Your task to perform on an android device: empty trash in the gmail app Image 0: 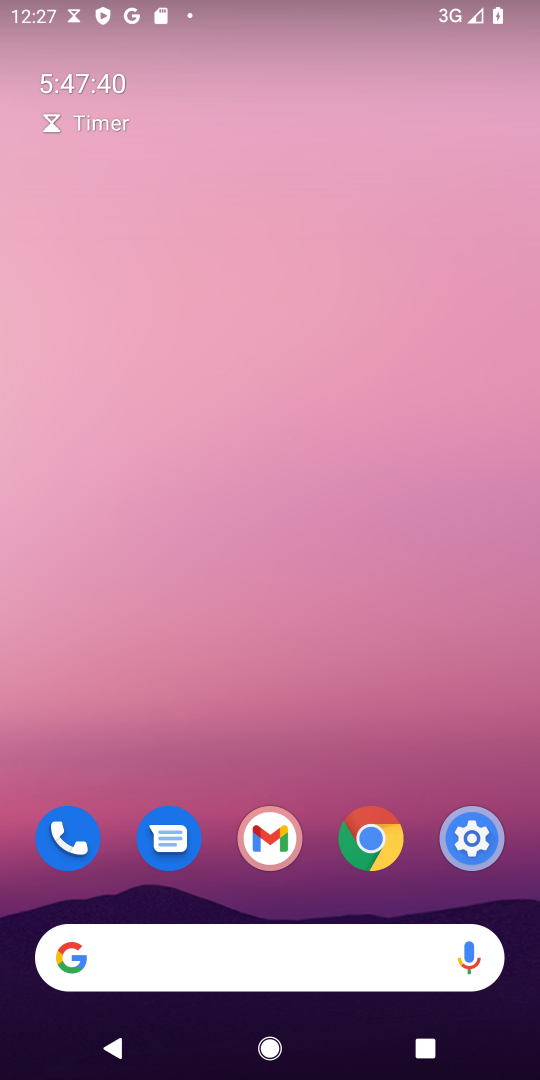
Step 0: click (262, 834)
Your task to perform on an android device: empty trash in the gmail app Image 1: 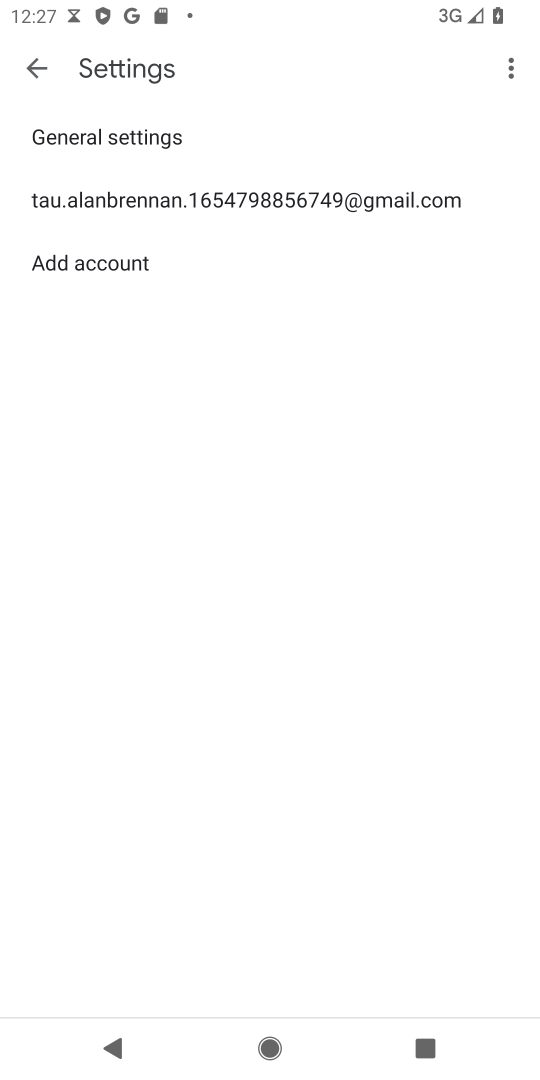
Step 1: click (34, 67)
Your task to perform on an android device: empty trash in the gmail app Image 2: 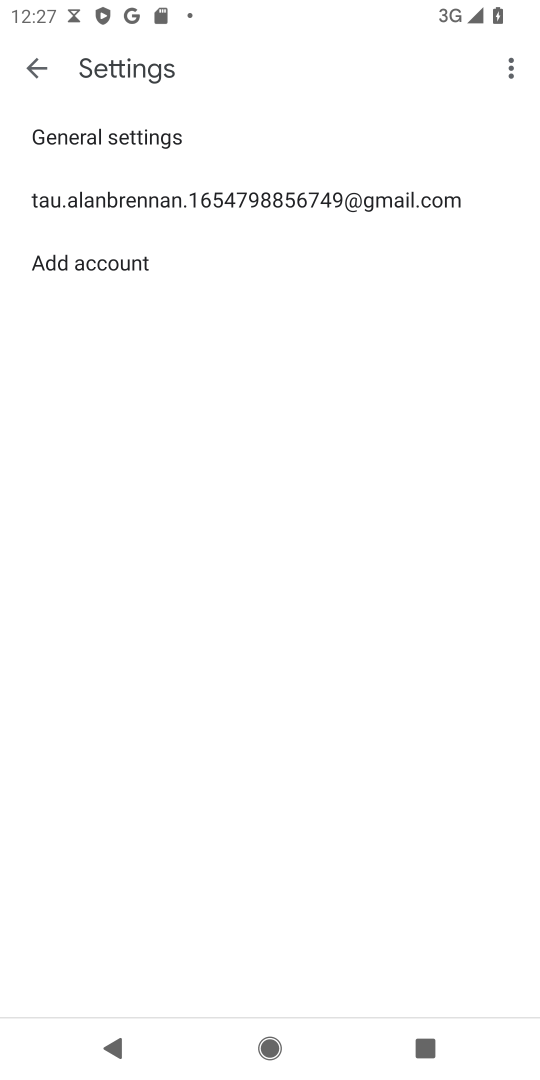
Step 2: click (42, 76)
Your task to perform on an android device: empty trash in the gmail app Image 3: 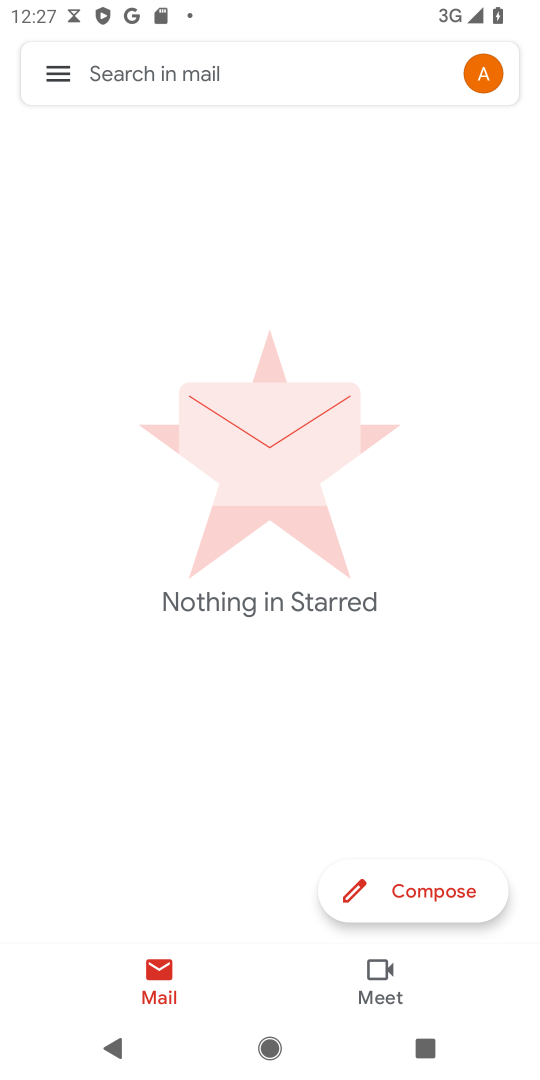
Step 3: click (56, 70)
Your task to perform on an android device: empty trash in the gmail app Image 4: 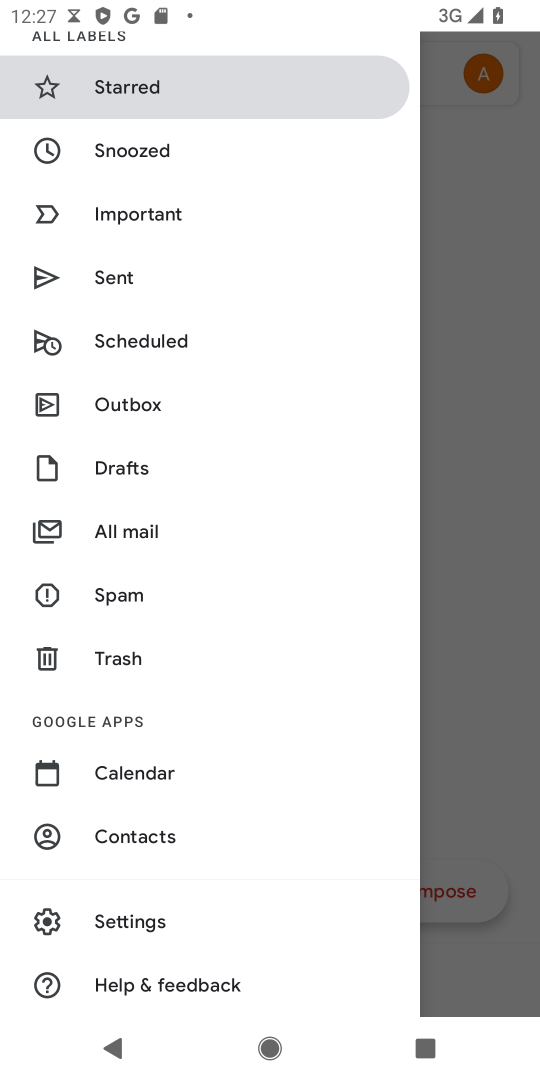
Step 4: click (143, 669)
Your task to perform on an android device: empty trash in the gmail app Image 5: 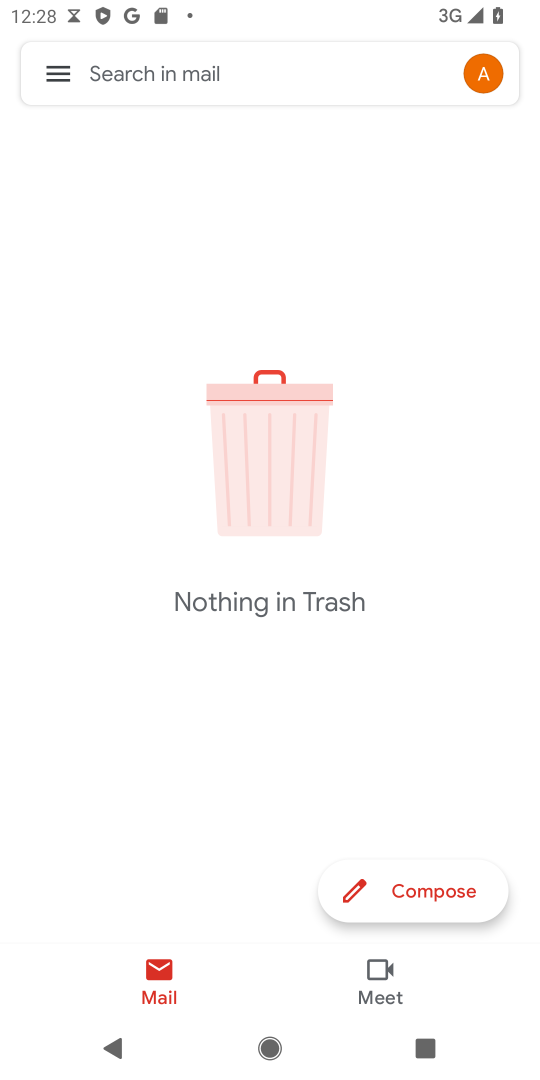
Step 5: task complete